Your task to perform on an android device: Toggle the flashlight Image 0: 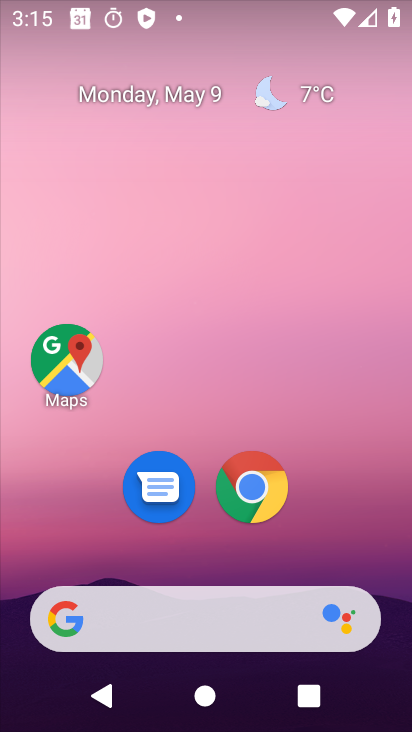
Step 0: drag from (353, 612) to (296, 1)
Your task to perform on an android device: Toggle the flashlight Image 1: 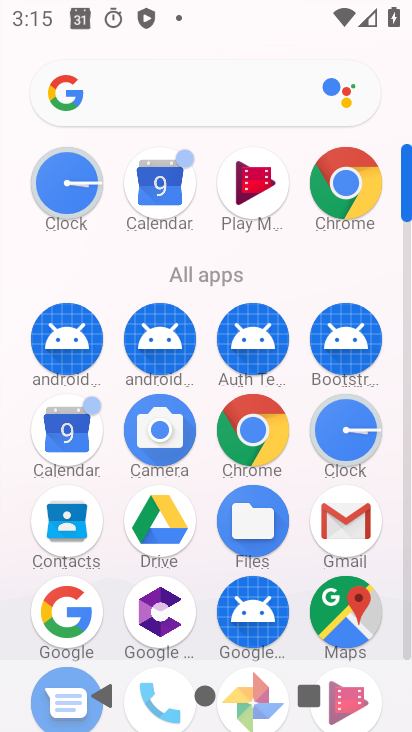
Step 1: drag from (260, 634) to (286, 244)
Your task to perform on an android device: Toggle the flashlight Image 2: 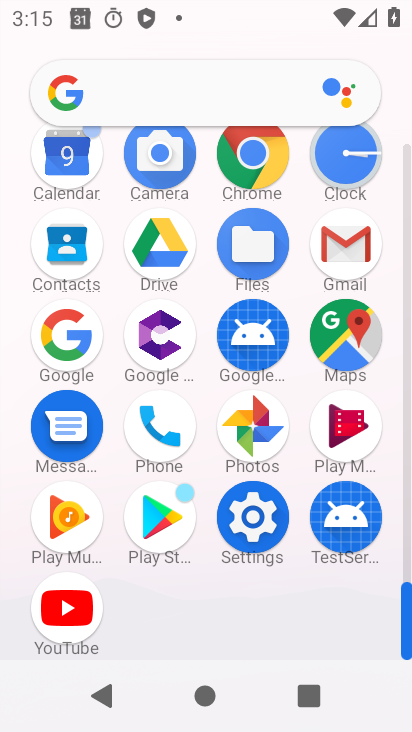
Step 2: click (250, 544)
Your task to perform on an android device: Toggle the flashlight Image 3: 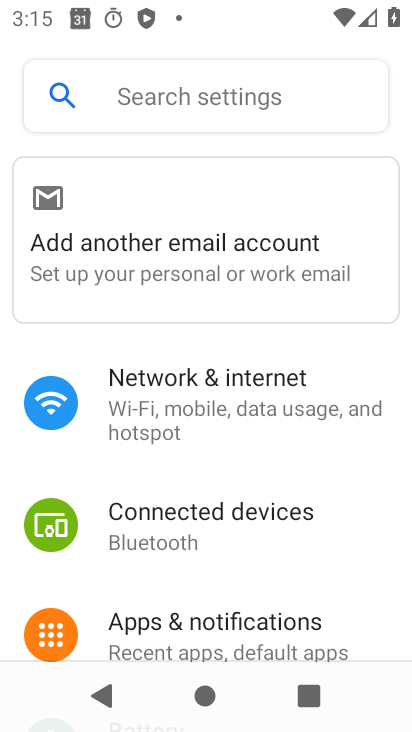
Step 3: task complete